Your task to perform on an android device: Search for hotels in Paris Image 0: 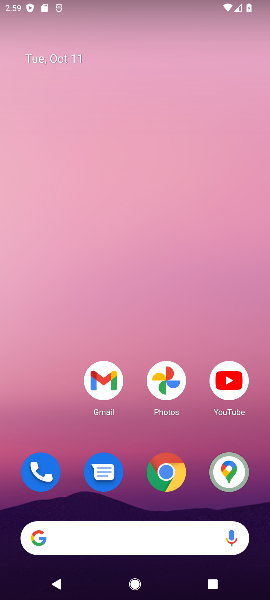
Step 0: click (165, 464)
Your task to perform on an android device: Search for hotels in Paris Image 1: 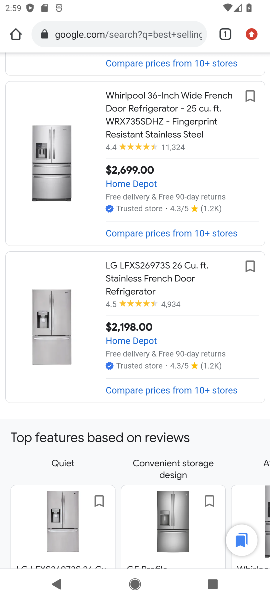
Step 1: click (151, 30)
Your task to perform on an android device: Search for hotels in Paris Image 2: 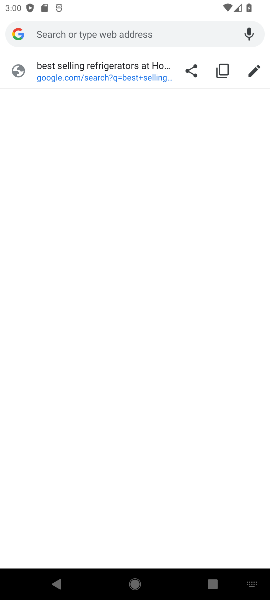
Step 2: type "hotels in Paris"
Your task to perform on an android device: Search for hotels in Paris Image 3: 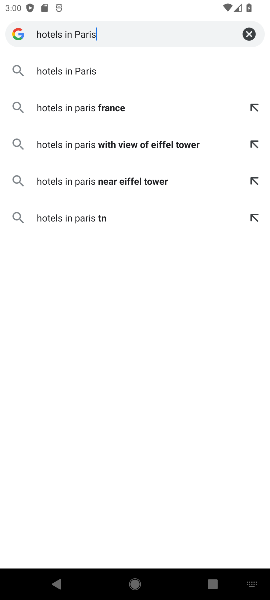
Step 3: click (96, 79)
Your task to perform on an android device: Search for hotels in Paris Image 4: 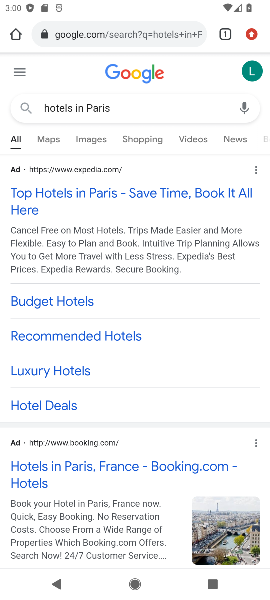
Step 4: drag from (106, 540) to (43, 375)
Your task to perform on an android device: Search for hotels in Paris Image 5: 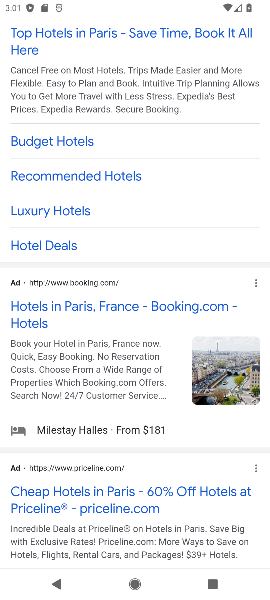
Step 5: drag from (95, 547) to (135, 99)
Your task to perform on an android device: Search for hotels in Paris Image 6: 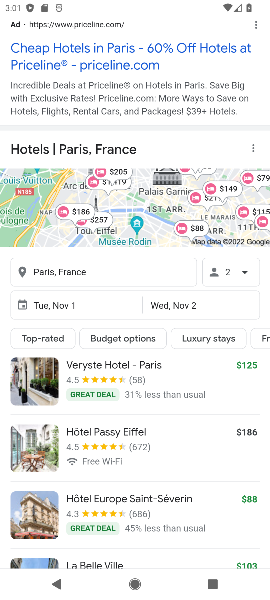
Step 6: drag from (89, 524) to (113, 176)
Your task to perform on an android device: Search for hotels in Paris Image 7: 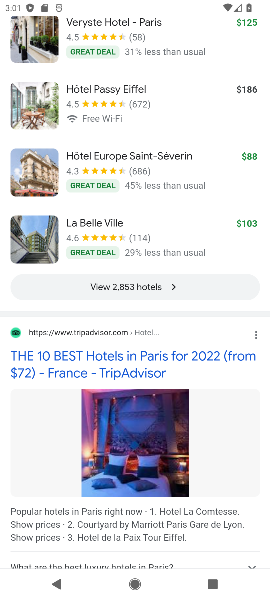
Step 7: click (134, 283)
Your task to perform on an android device: Search for hotels in Paris Image 8: 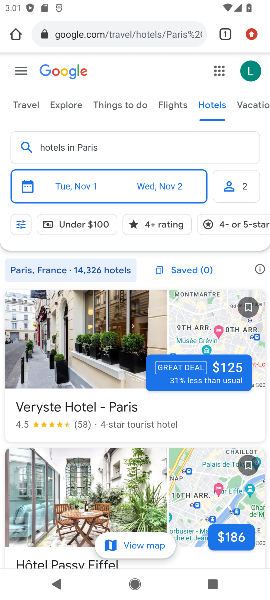
Step 8: task complete